Your task to perform on an android device: toggle wifi Image 0: 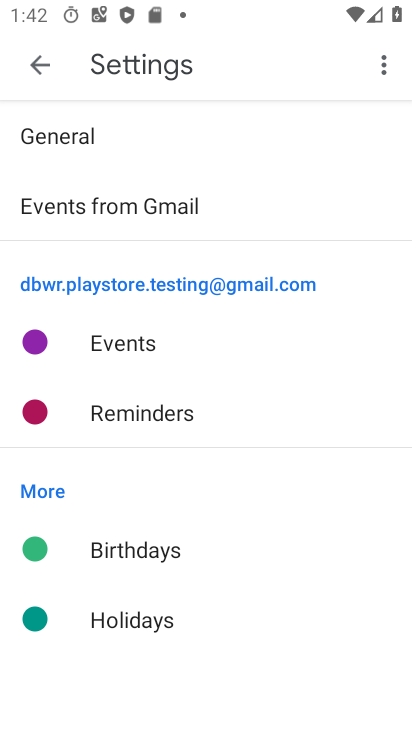
Step 0: press home button
Your task to perform on an android device: toggle wifi Image 1: 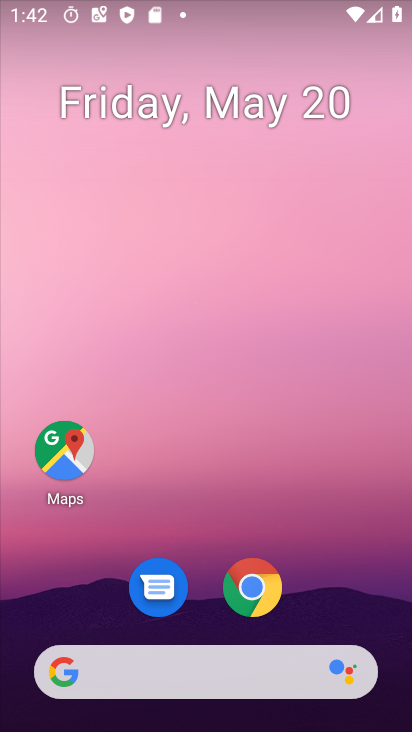
Step 1: drag from (339, 545) to (256, 66)
Your task to perform on an android device: toggle wifi Image 2: 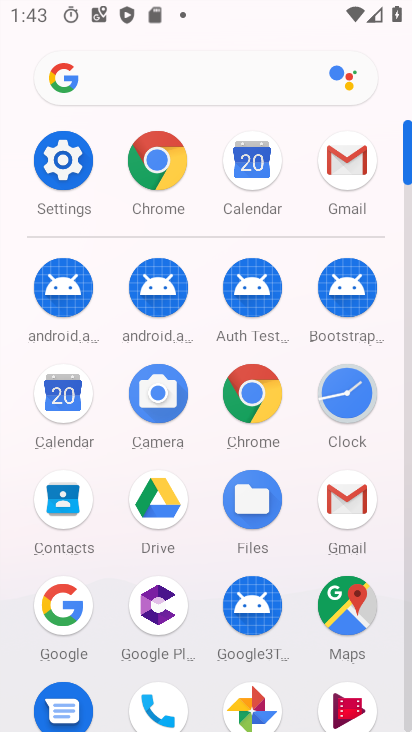
Step 2: click (79, 157)
Your task to perform on an android device: toggle wifi Image 3: 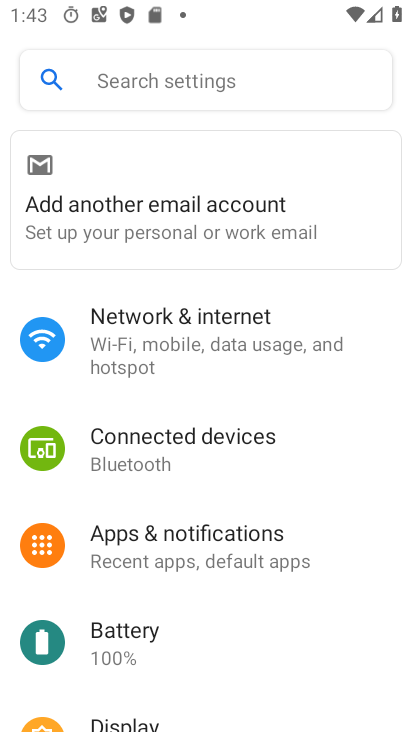
Step 3: click (220, 337)
Your task to perform on an android device: toggle wifi Image 4: 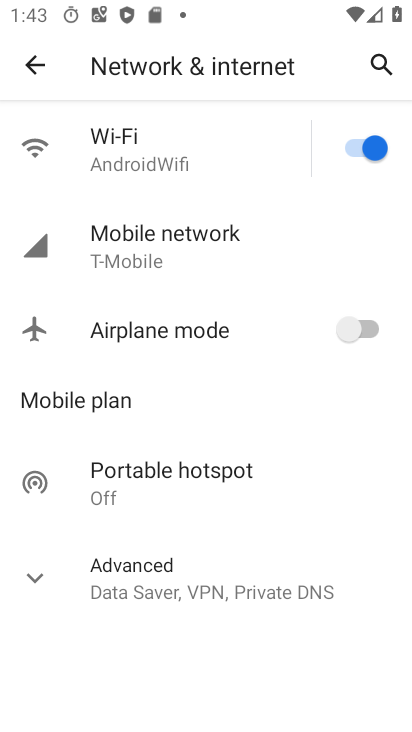
Step 4: click (352, 160)
Your task to perform on an android device: toggle wifi Image 5: 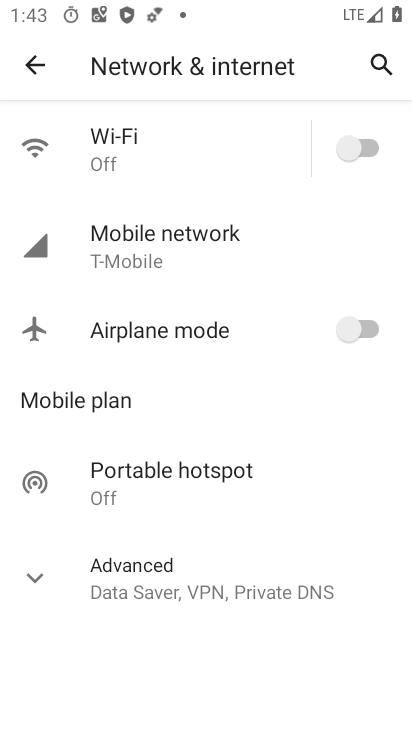
Step 5: task complete